Your task to perform on an android device: open a bookmark in the chrome app Image 0: 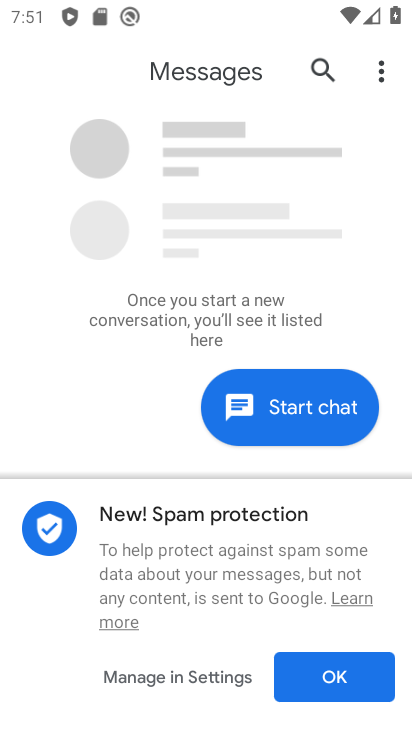
Step 0: press home button
Your task to perform on an android device: open a bookmark in the chrome app Image 1: 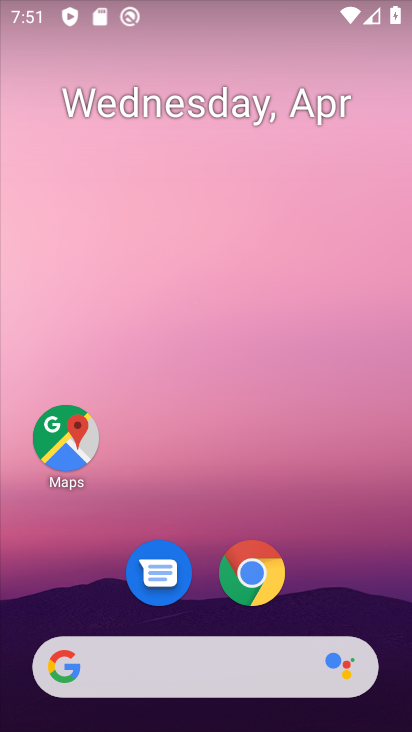
Step 1: click (243, 565)
Your task to perform on an android device: open a bookmark in the chrome app Image 2: 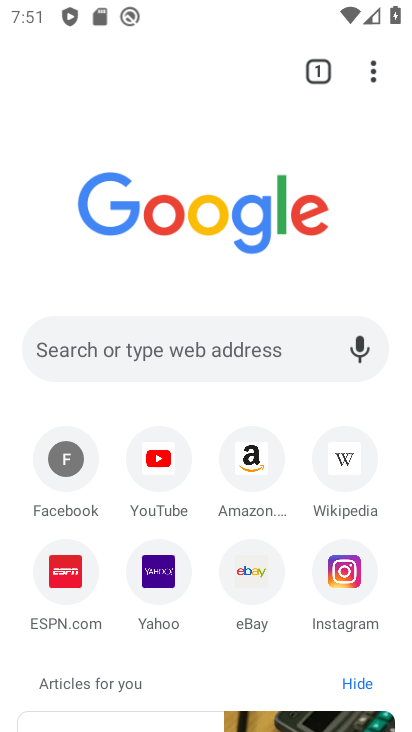
Step 2: click (370, 66)
Your task to perform on an android device: open a bookmark in the chrome app Image 3: 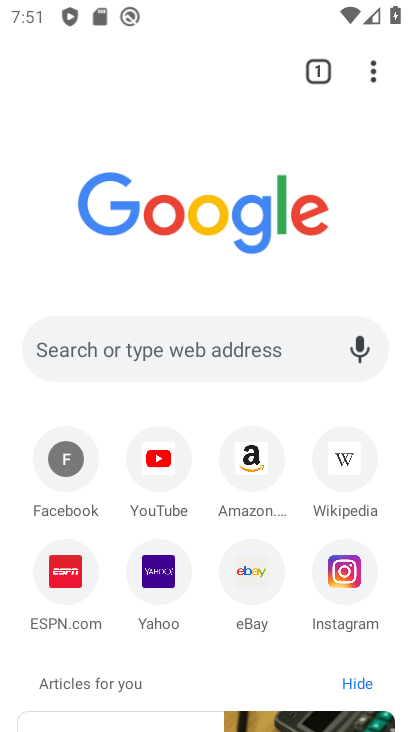
Step 3: click (370, 66)
Your task to perform on an android device: open a bookmark in the chrome app Image 4: 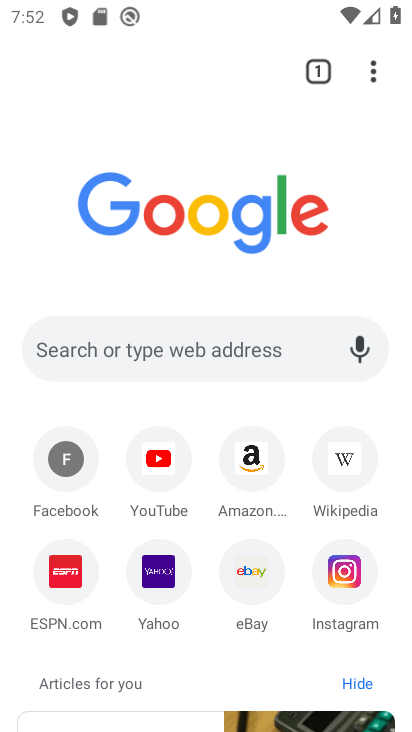
Step 4: click (367, 76)
Your task to perform on an android device: open a bookmark in the chrome app Image 5: 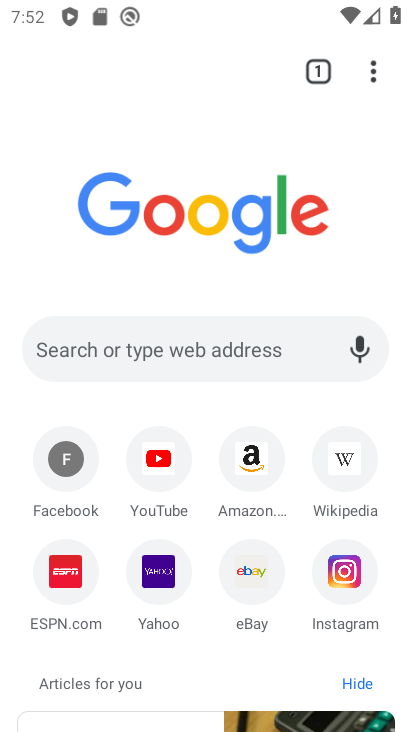
Step 5: click (370, 71)
Your task to perform on an android device: open a bookmark in the chrome app Image 6: 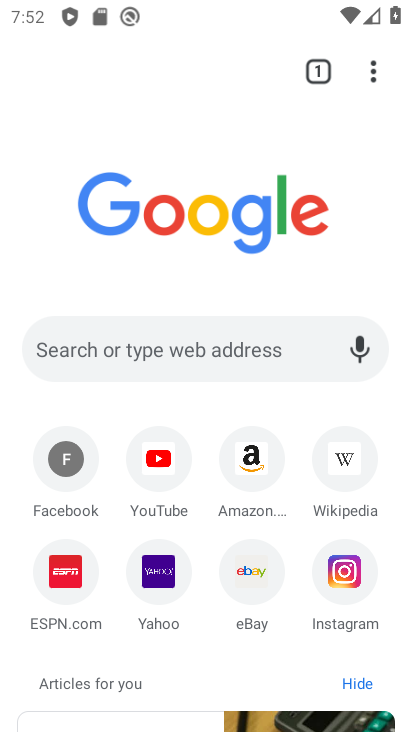
Step 6: click (372, 71)
Your task to perform on an android device: open a bookmark in the chrome app Image 7: 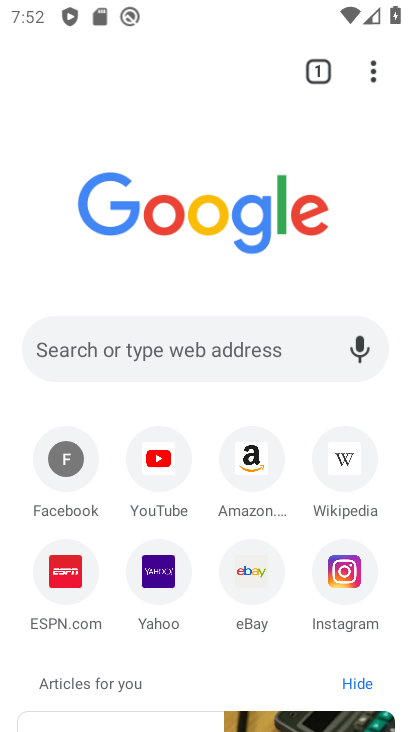
Step 7: click (372, 71)
Your task to perform on an android device: open a bookmark in the chrome app Image 8: 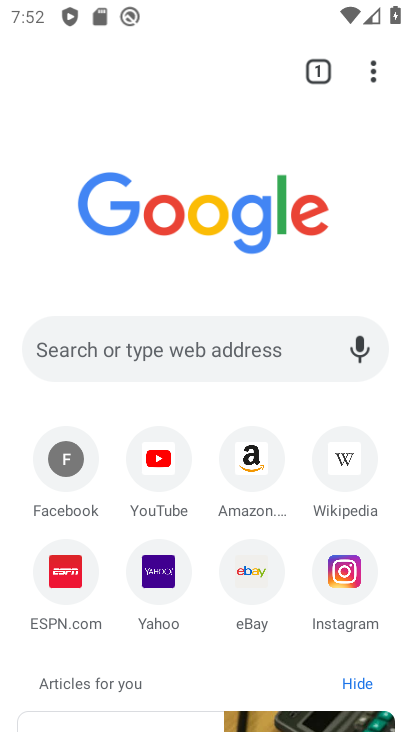
Step 8: click (371, 73)
Your task to perform on an android device: open a bookmark in the chrome app Image 9: 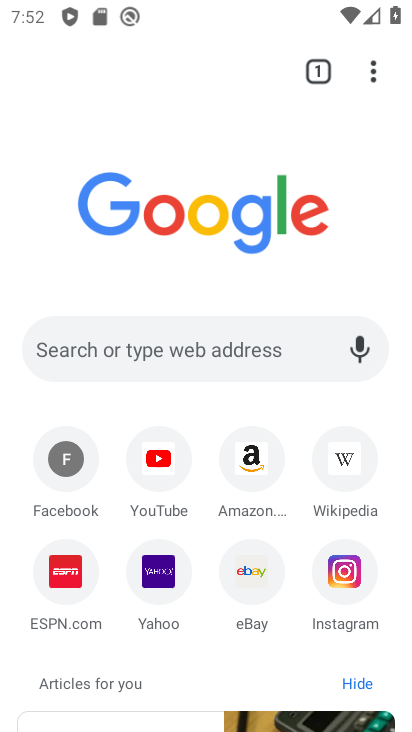
Step 9: click (373, 69)
Your task to perform on an android device: open a bookmark in the chrome app Image 10: 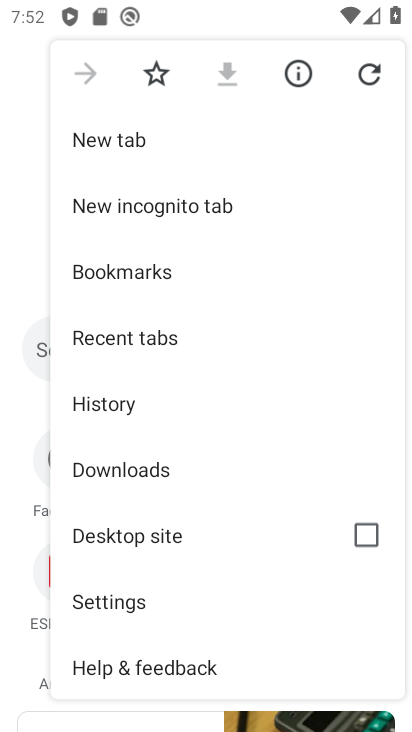
Step 10: click (84, 606)
Your task to perform on an android device: open a bookmark in the chrome app Image 11: 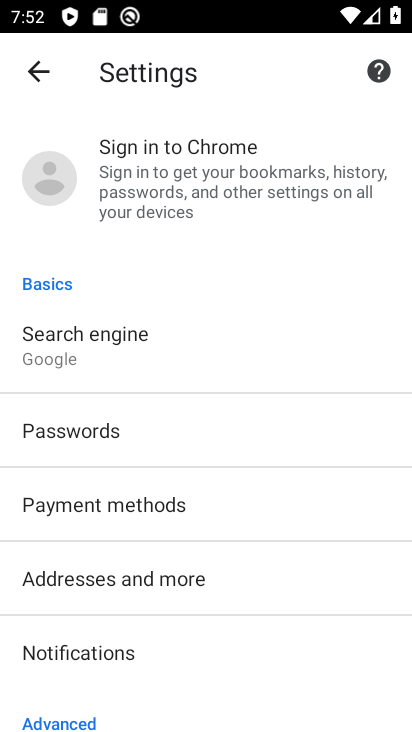
Step 11: press back button
Your task to perform on an android device: open a bookmark in the chrome app Image 12: 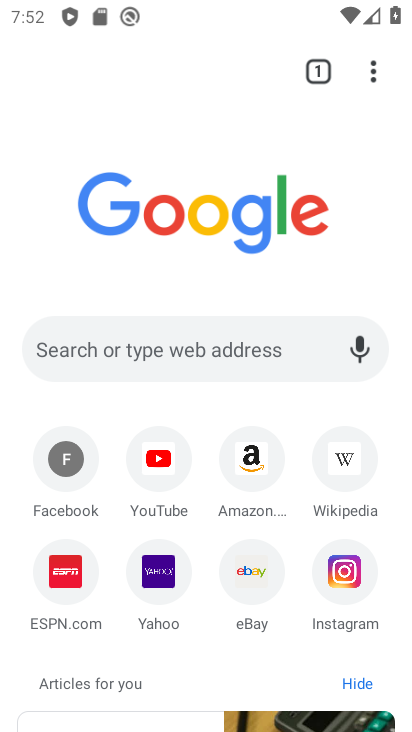
Step 12: click (372, 71)
Your task to perform on an android device: open a bookmark in the chrome app Image 13: 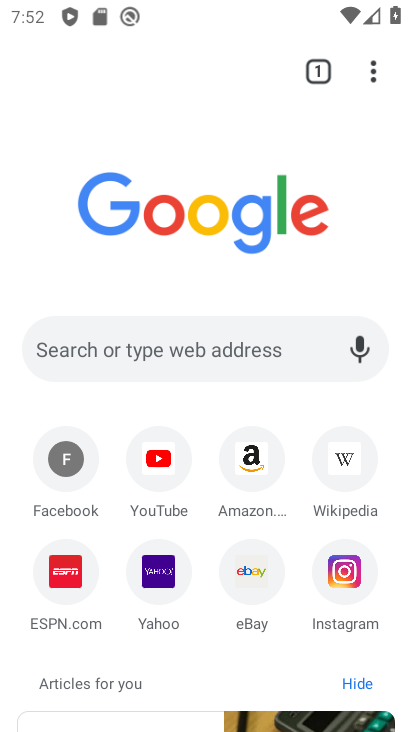
Step 13: click (372, 71)
Your task to perform on an android device: open a bookmark in the chrome app Image 14: 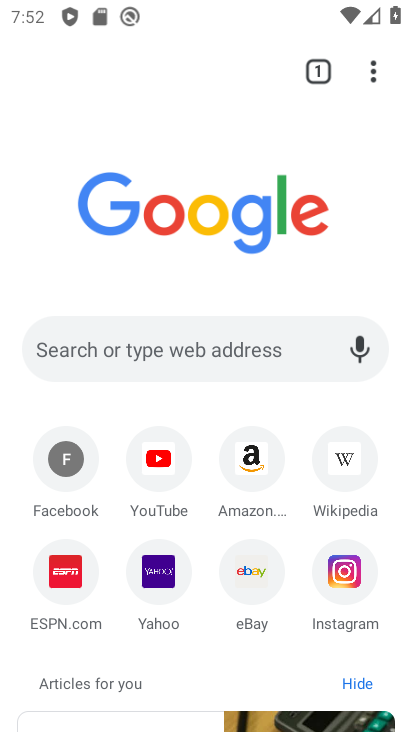
Step 14: click (374, 73)
Your task to perform on an android device: open a bookmark in the chrome app Image 15: 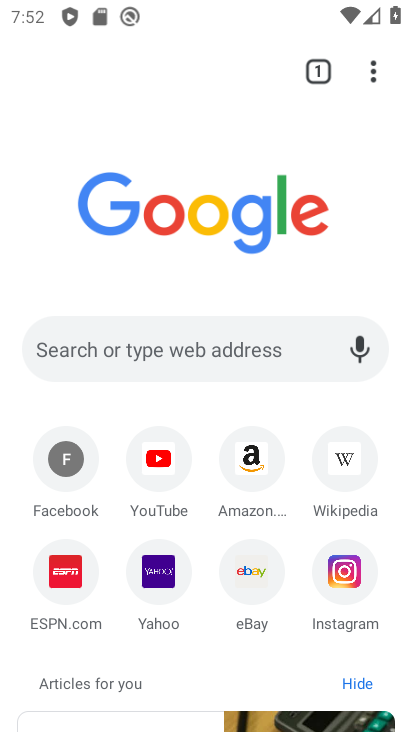
Step 15: click (376, 72)
Your task to perform on an android device: open a bookmark in the chrome app Image 16: 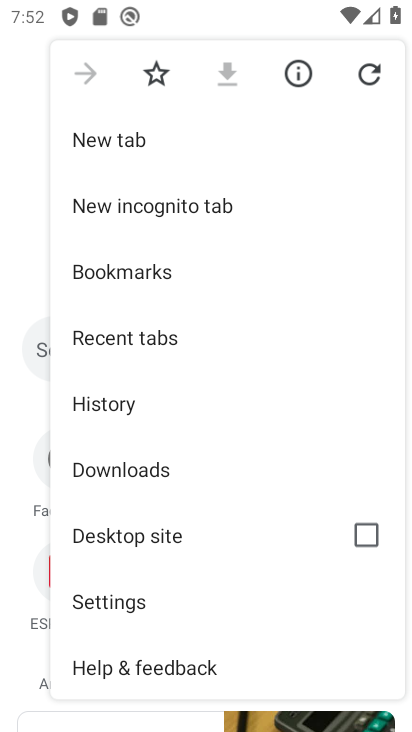
Step 16: click (167, 274)
Your task to perform on an android device: open a bookmark in the chrome app Image 17: 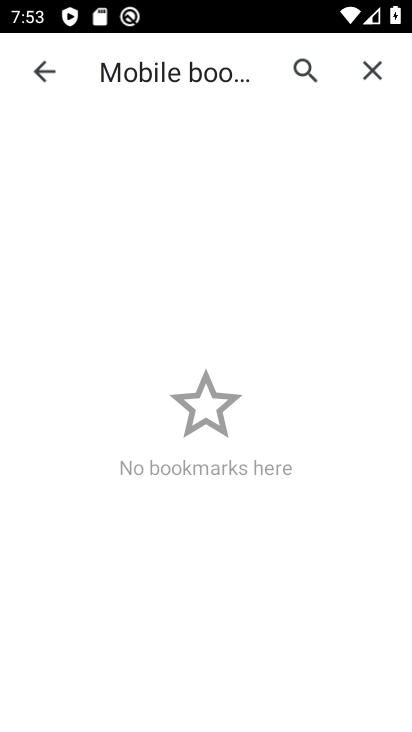
Step 17: task complete